Your task to perform on an android device: Go to eBay Image 0: 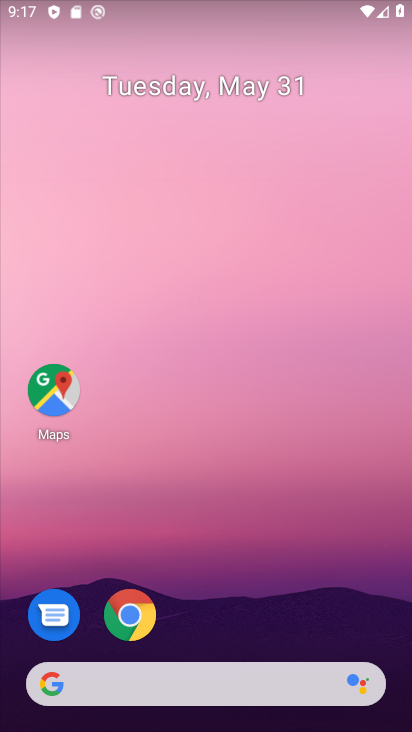
Step 0: click (116, 613)
Your task to perform on an android device: Go to eBay Image 1: 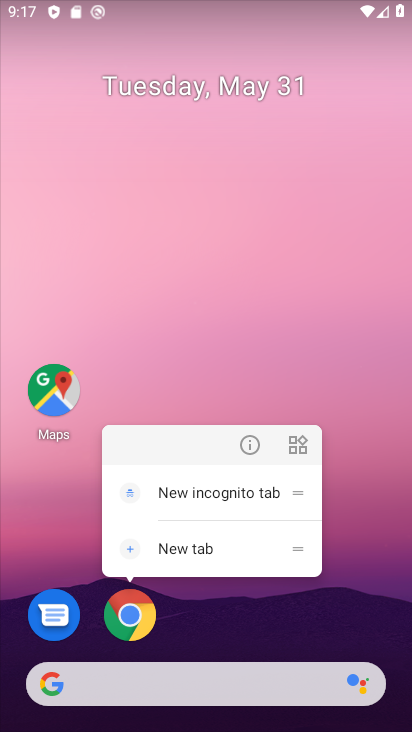
Step 1: click (125, 620)
Your task to perform on an android device: Go to eBay Image 2: 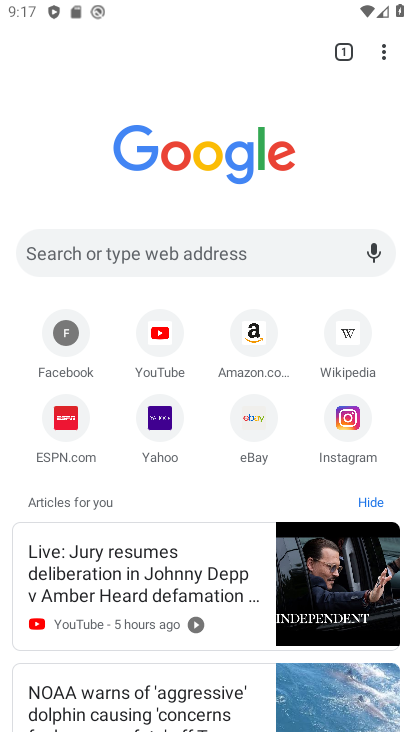
Step 2: click (150, 258)
Your task to perform on an android device: Go to eBay Image 3: 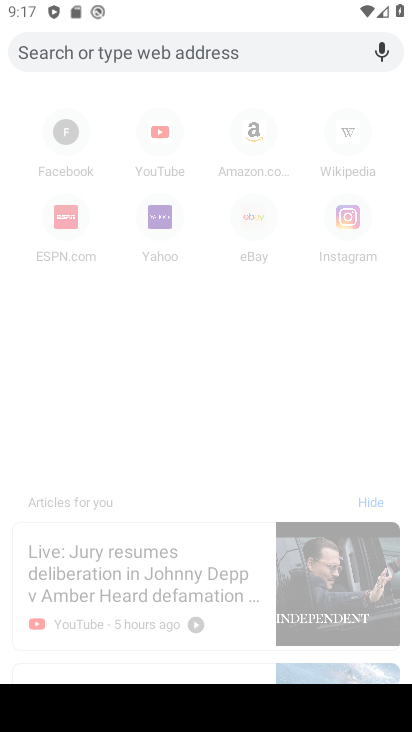
Step 3: type "ebay"
Your task to perform on an android device: Go to eBay Image 4: 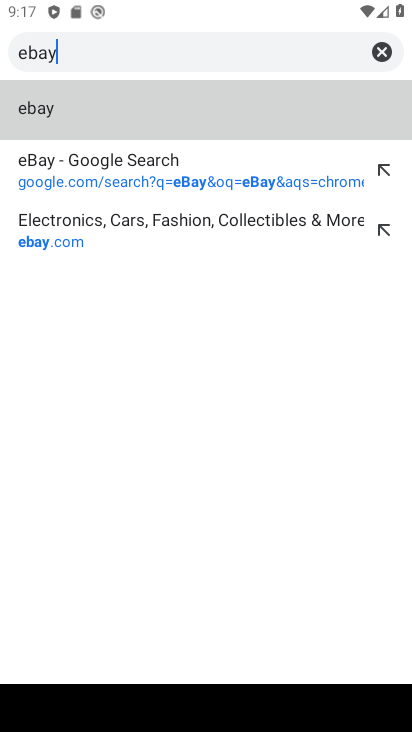
Step 4: click (71, 91)
Your task to perform on an android device: Go to eBay Image 5: 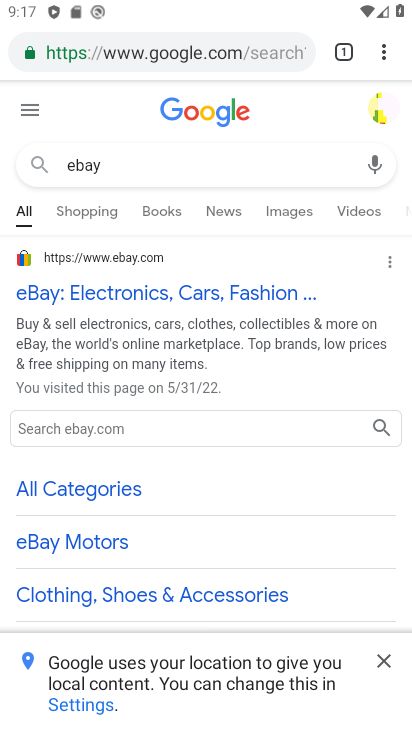
Step 5: click (128, 296)
Your task to perform on an android device: Go to eBay Image 6: 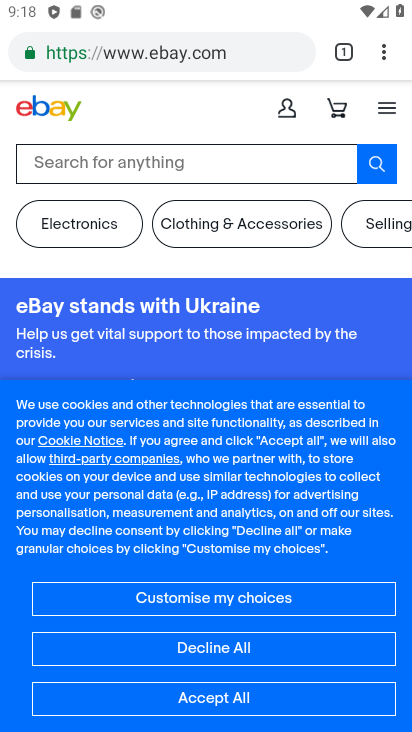
Step 6: task complete